Your task to perform on an android device: Go to eBay Image 0: 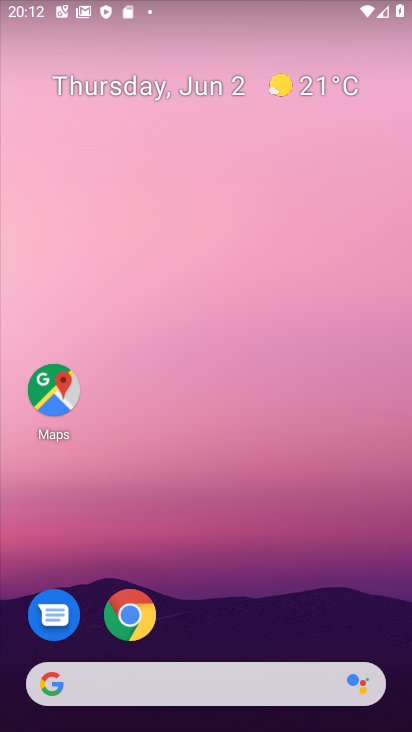
Step 0: task complete